Your task to perform on an android device: Show me the alarms in the clock app Image 0: 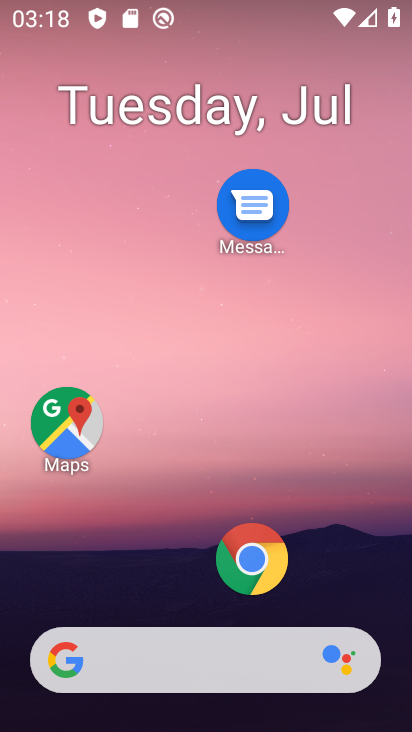
Step 0: drag from (142, 571) to (213, 51)
Your task to perform on an android device: Show me the alarms in the clock app Image 1: 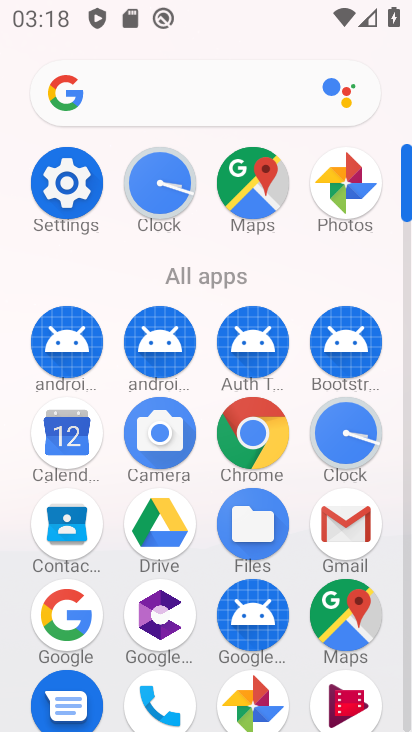
Step 1: click (152, 200)
Your task to perform on an android device: Show me the alarms in the clock app Image 2: 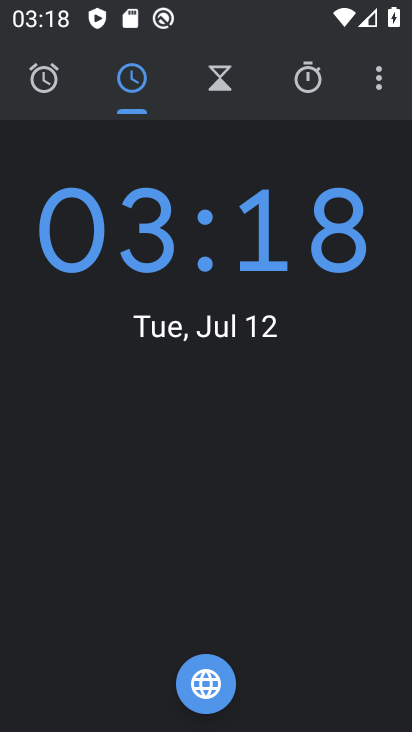
Step 2: click (49, 73)
Your task to perform on an android device: Show me the alarms in the clock app Image 3: 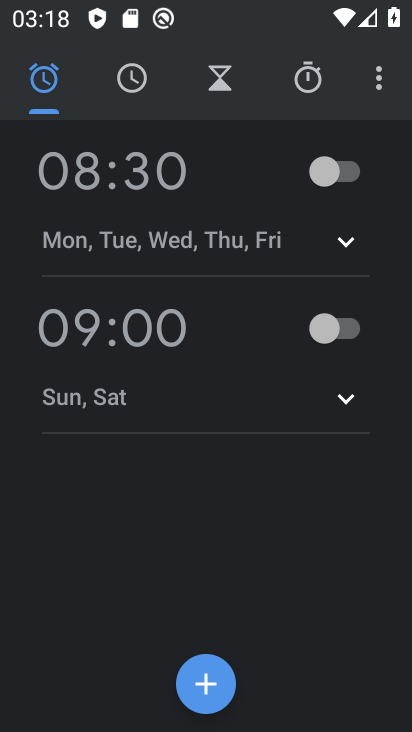
Step 3: task complete